Your task to perform on an android device: What's the weather going to be this weekend? Image 0: 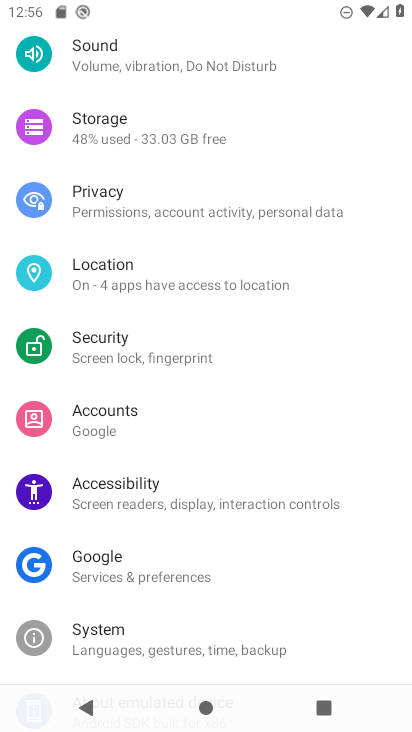
Step 0: press home button
Your task to perform on an android device: What's the weather going to be this weekend? Image 1: 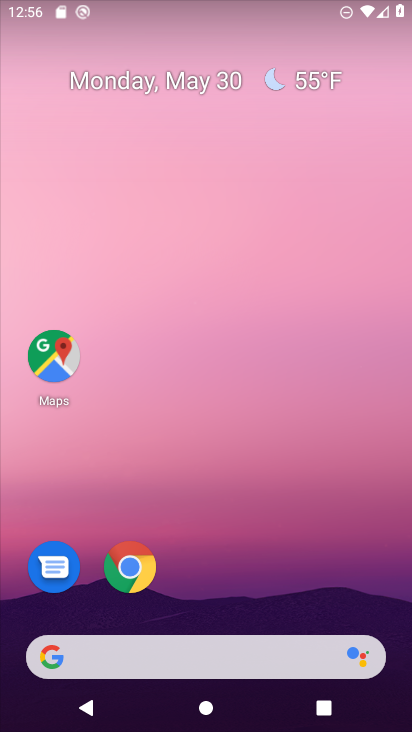
Step 1: click (298, 73)
Your task to perform on an android device: What's the weather going to be this weekend? Image 2: 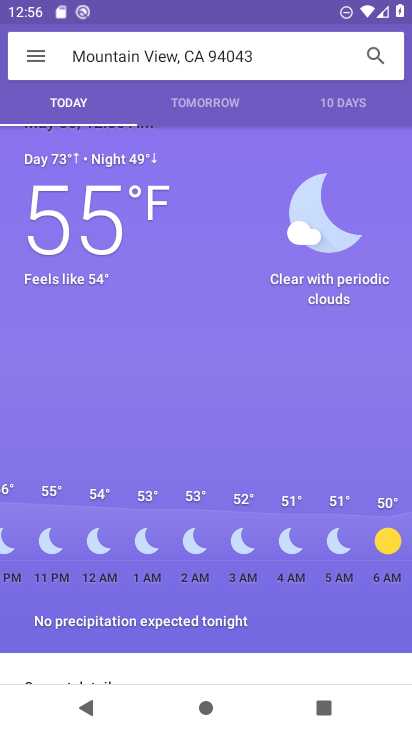
Step 2: click (343, 104)
Your task to perform on an android device: What's the weather going to be this weekend? Image 3: 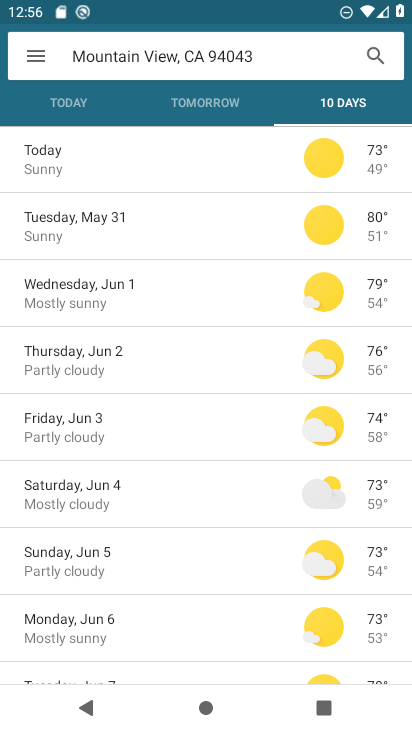
Step 3: task complete